Your task to perform on an android device: turn off notifications in google photos Image 0: 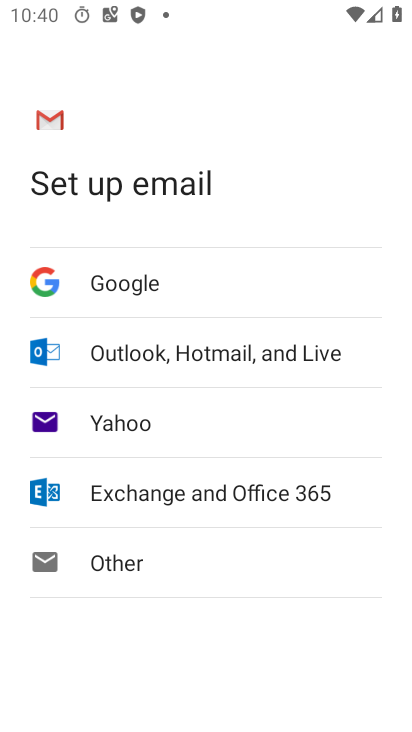
Step 0: press back button
Your task to perform on an android device: turn off notifications in google photos Image 1: 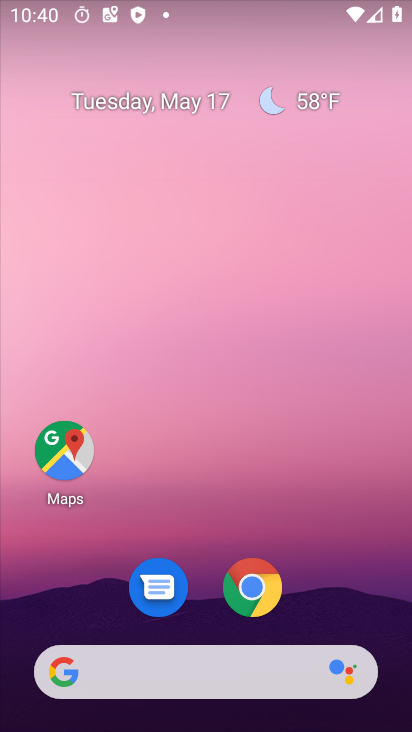
Step 1: drag from (326, 583) to (244, 110)
Your task to perform on an android device: turn off notifications in google photos Image 2: 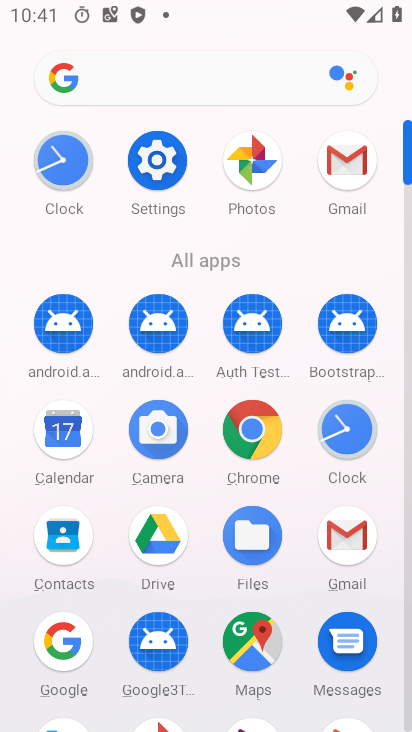
Step 2: click (252, 160)
Your task to perform on an android device: turn off notifications in google photos Image 3: 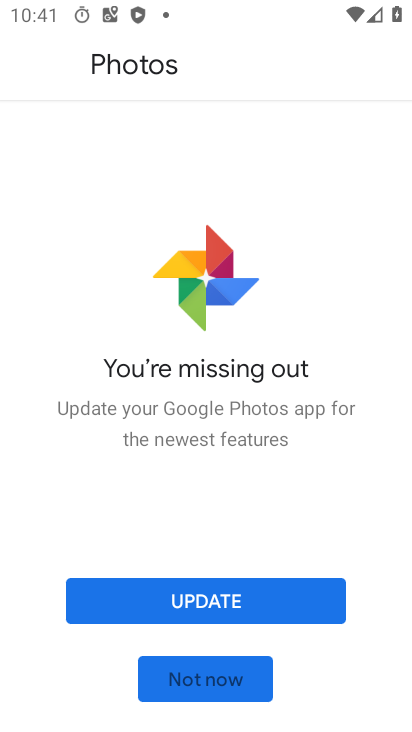
Step 3: click (203, 604)
Your task to perform on an android device: turn off notifications in google photos Image 4: 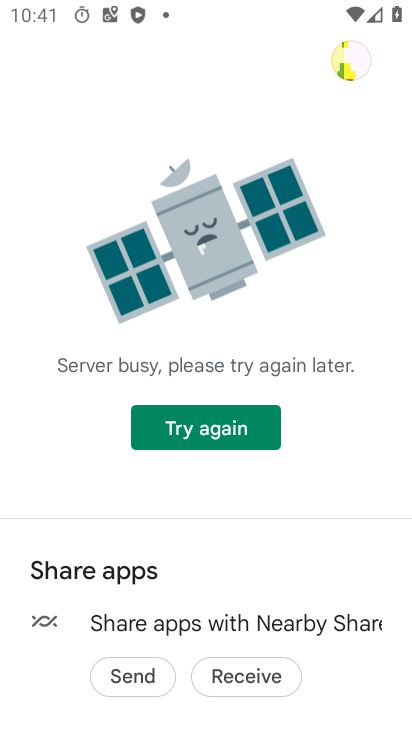
Step 4: click (236, 434)
Your task to perform on an android device: turn off notifications in google photos Image 5: 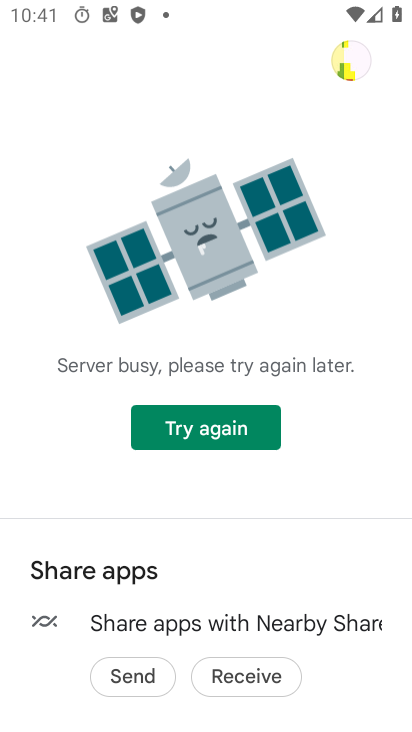
Step 5: click (204, 426)
Your task to perform on an android device: turn off notifications in google photos Image 6: 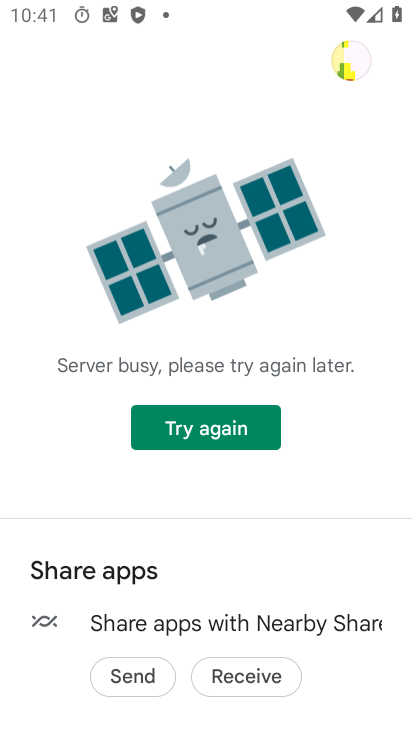
Step 6: click (204, 426)
Your task to perform on an android device: turn off notifications in google photos Image 7: 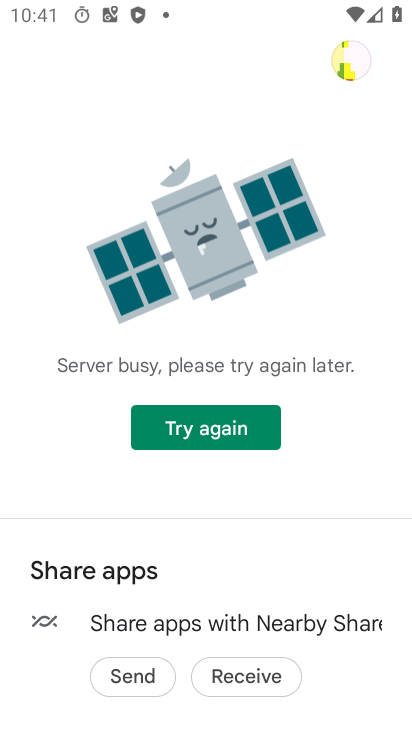
Step 7: click (204, 426)
Your task to perform on an android device: turn off notifications in google photos Image 8: 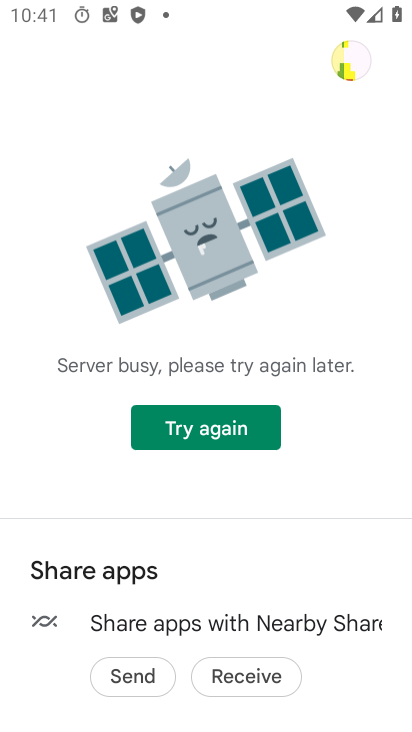
Step 8: click (204, 426)
Your task to perform on an android device: turn off notifications in google photos Image 9: 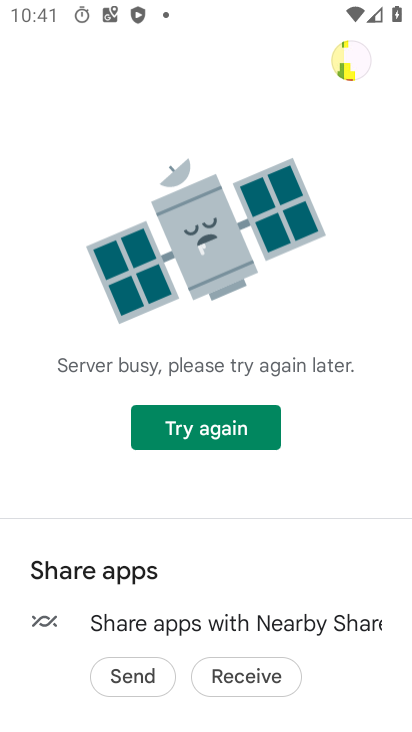
Step 9: click (204, 426)
Your task to perform on an android device: turn off notifications in google photos Image 10: 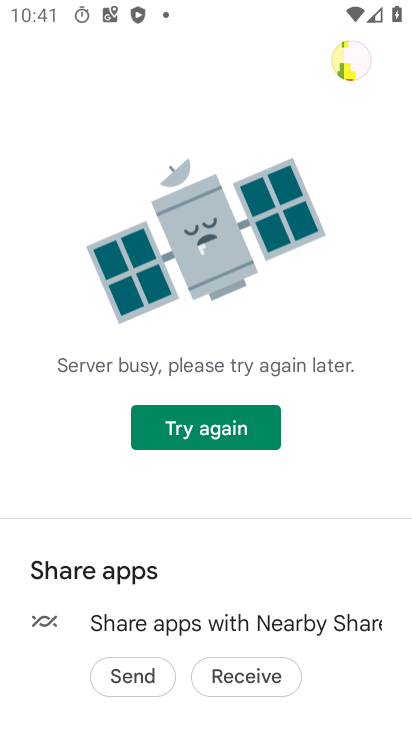
Step 10: task complete